Your task to perform on an android device: Go to eBay Image 0: 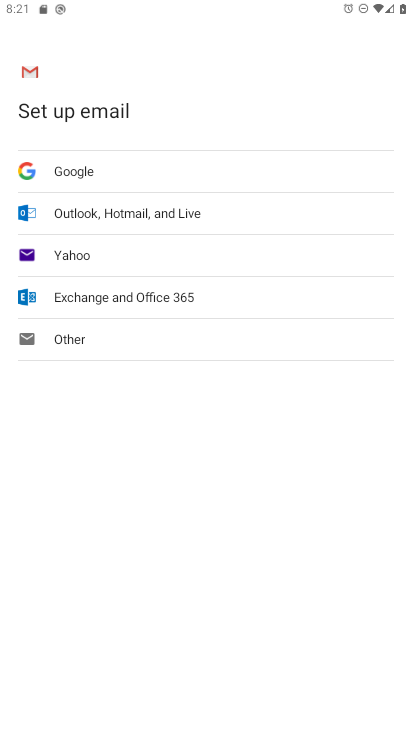
Step 0: press home button
Your task to perform on an android device: Go to eBay Image 1: 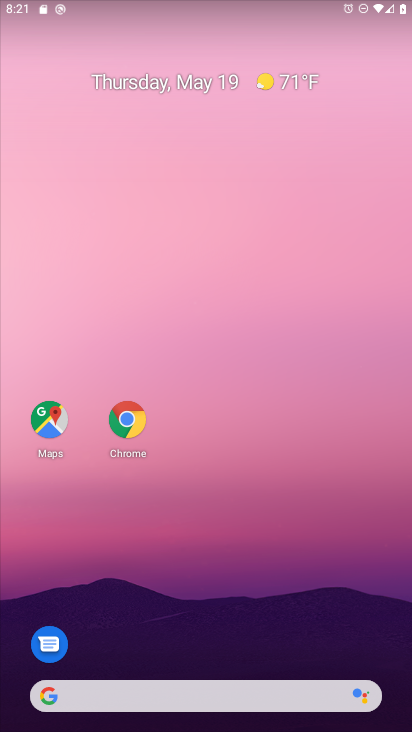
Step 1: drag from (165, 673) to (189, 356)
Your task to perform on an android device: Go to eBay Image 2: 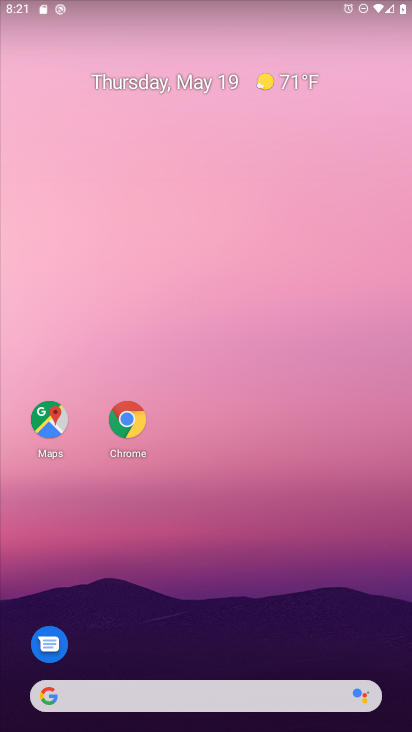
Step 2: click (127, 433)
Your task to perform on an android device: Go to eBay Image 3: 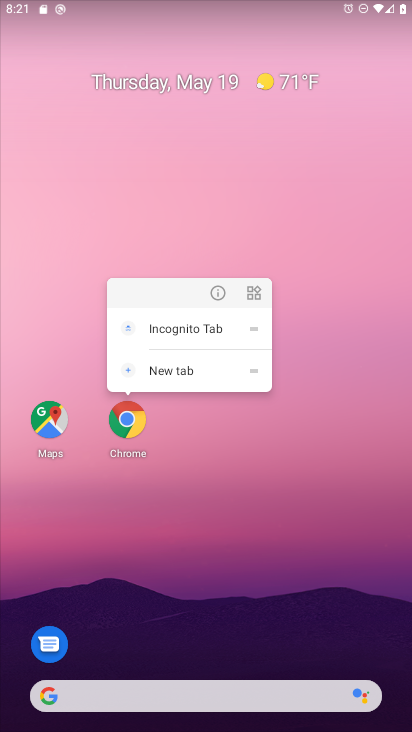
Step 3: click (128, 424)
Your task to perform on an android device: Go to eBay Image 4: 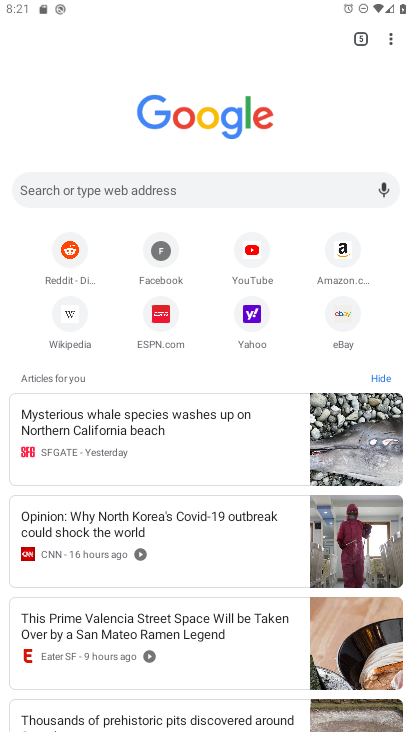
Step 4: click (358, 41)
Your task to perform on an android device: Go to eBay Image 5: 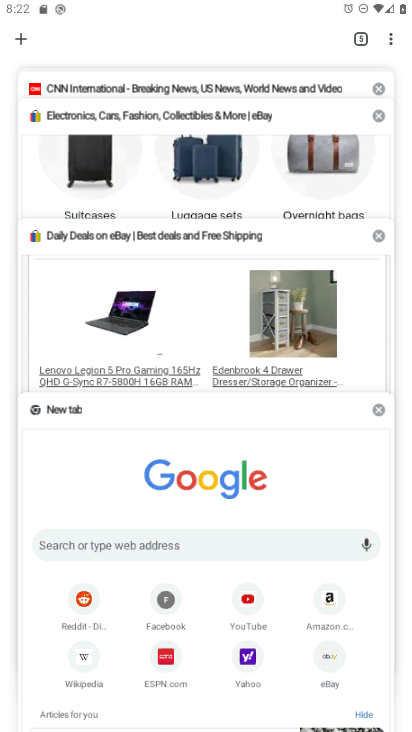
Step 5: click (173, 378)
Your task to perform on an android device: Go to eBay Image 6: 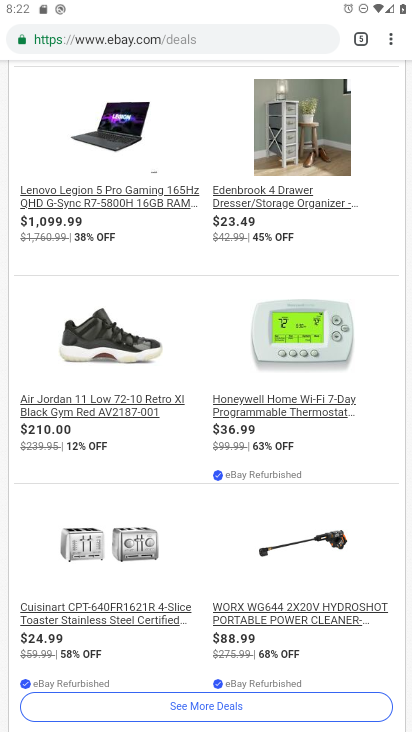
Step 6: task complete